Your task to perform on an android device: empty trash in google photos Image 0: 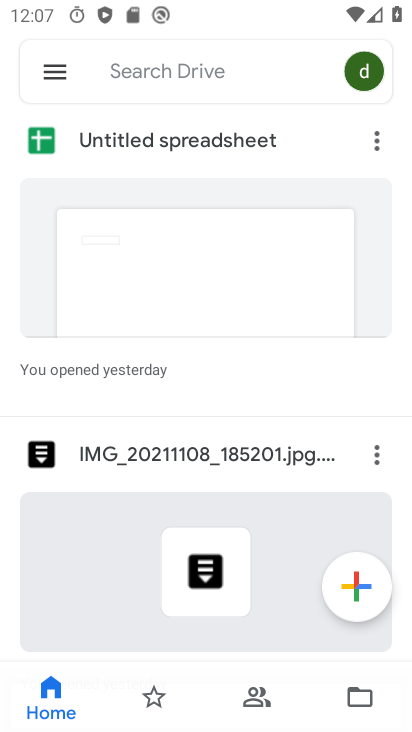
Step 0: press back button
Your task to perform on an android device: empty trash in google photos Image 1: 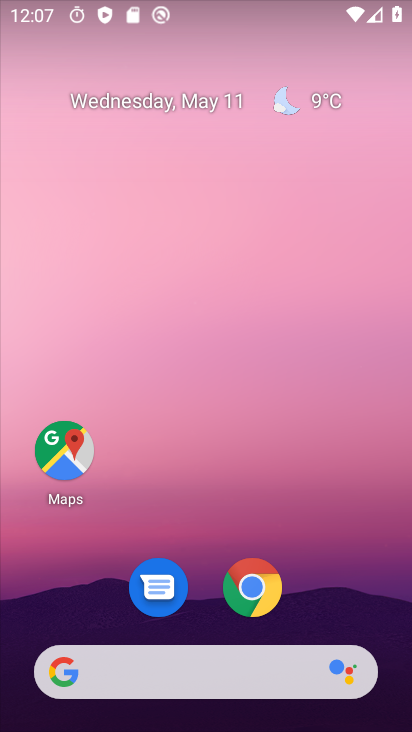
Step 1: drag from (341, 612) to (185, 92)
Your task to perform on an android device: empty trash in google photos Image 2: 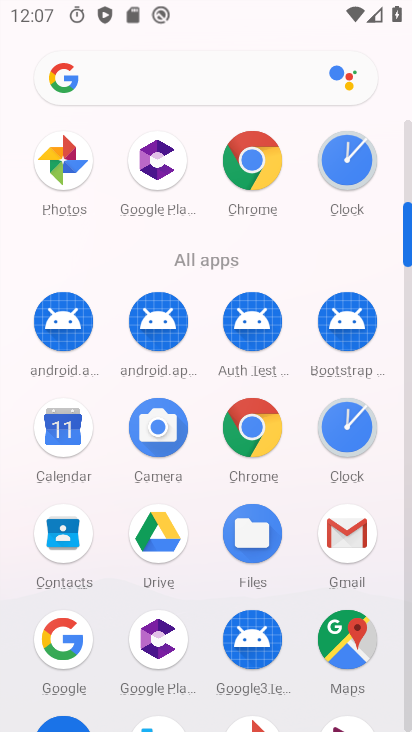
Step 2: click (54, 161)
Your task to perform on an android device: empty trash in google photos Image 3: 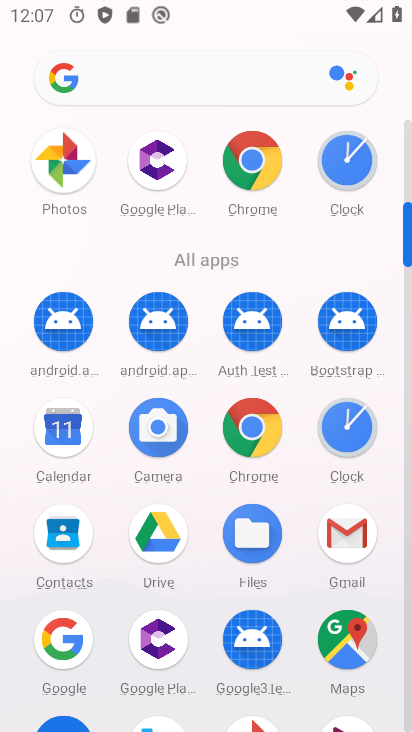
Step 3: click (53, 160)
Your task to perform on an android device: empty trash in google photos Image 4: 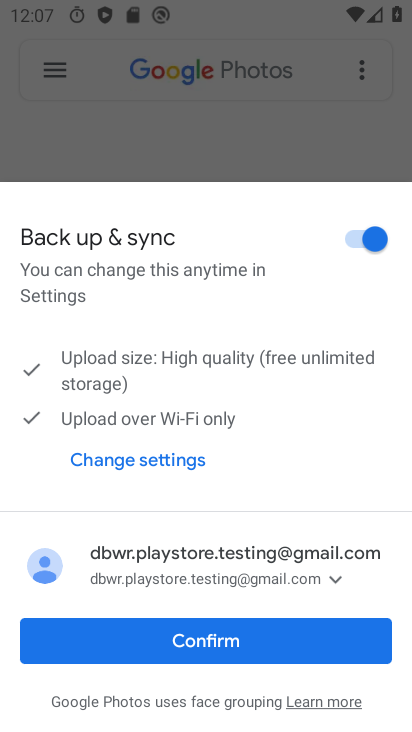
Step 4: click (218, 640)
Your task to perform on an android device: empty trash in google photos Image 5: 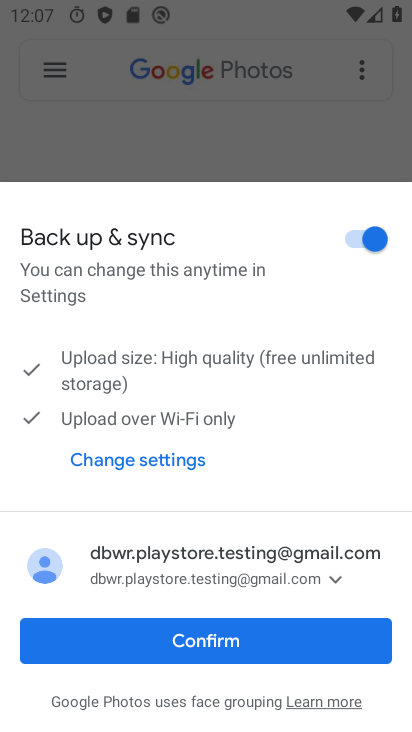
Step 5: click (218, 640)
Your task to perform on an android device: empty trash in google photos Image 6: 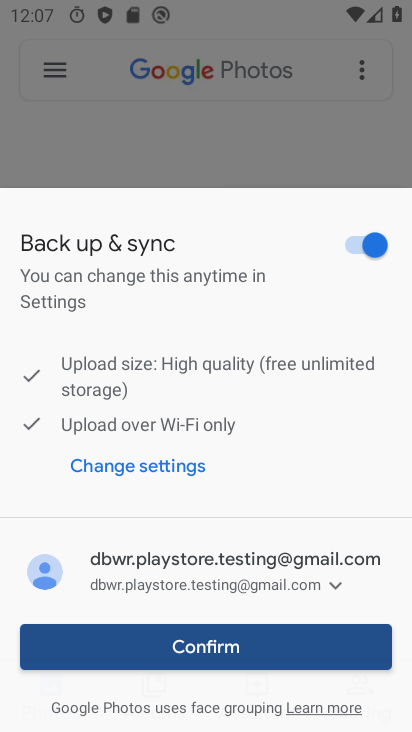
Step 6: click (218, 640)
Your task to perform on an android device: empty trash in google photos Image 7: 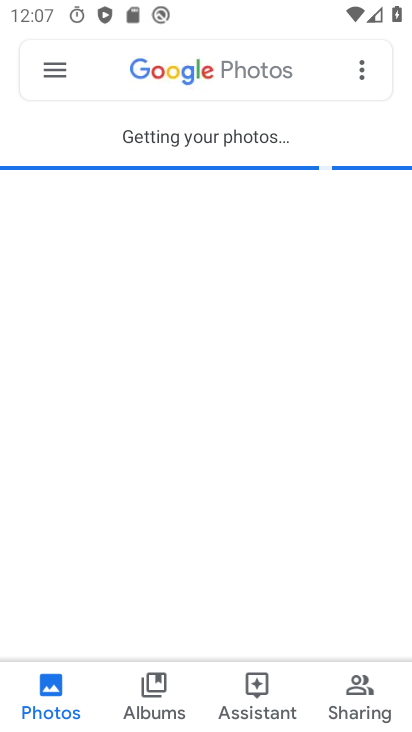
Step 7: click (51, 66)
Your task to perform on an android device: empty trash in google photos Image 8: 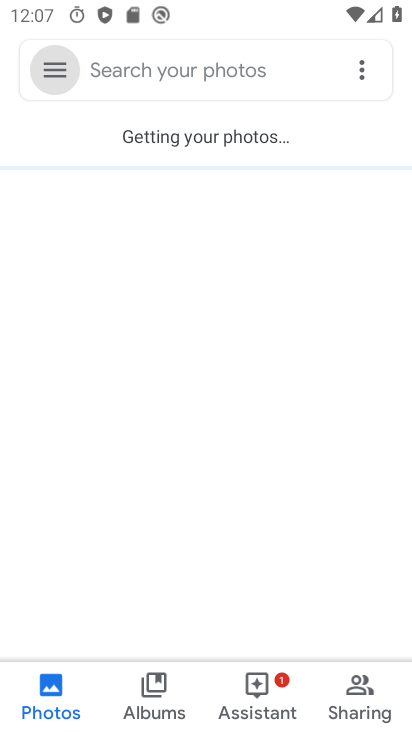
Step 8: drag from (52, 67) to (399, 577)
Your task to perform on an android device: empty trash in google photos Image 9: 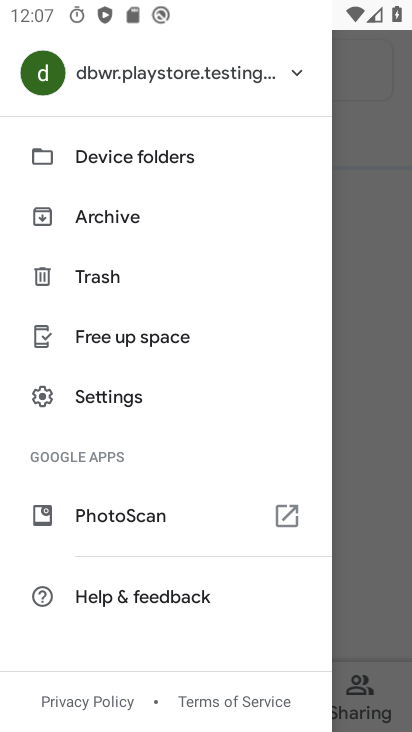
Step 9: click (86, 274)
Your task to perform on an android device: empty trash in google photos Image 10: 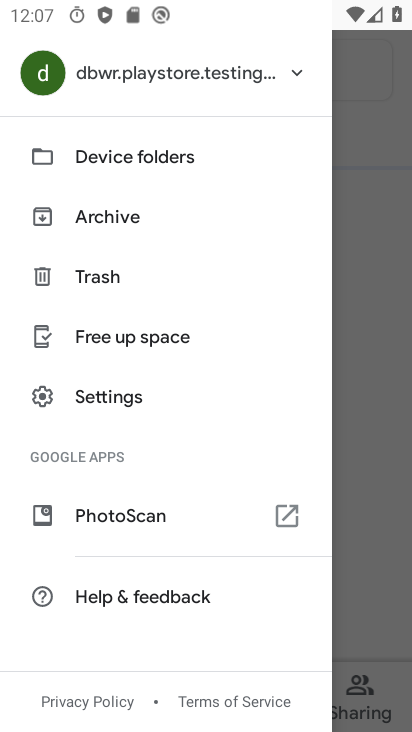
Step 10: click (86, 274)
Your task to perform on an android device: empty trash in google photos Image 11: 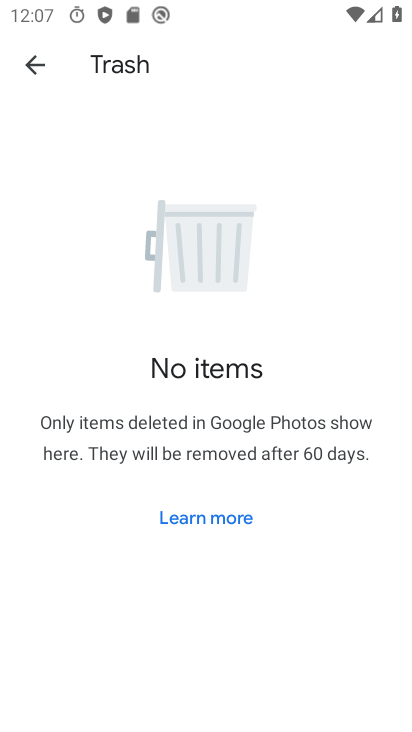
Step 11: task complete